Your task to perform on an android device: add a label to a message in the gmail app Image 0: 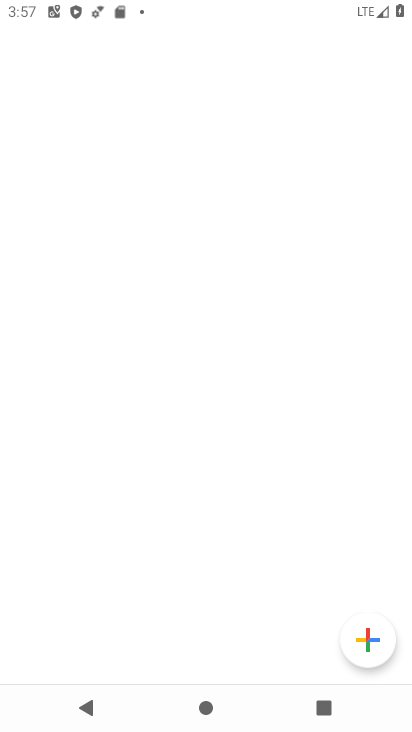
Step 0: press home button
Your task to perform on an android device: add a label to a message in the gmail app Image 1: 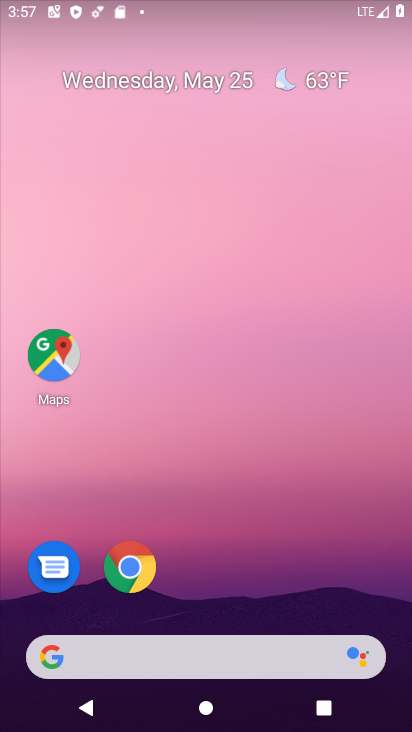
Step 1: drag from (328, 592) to (307, 215)
Your task to perform on an android device: add a label to a message in the gmail app Image 2: 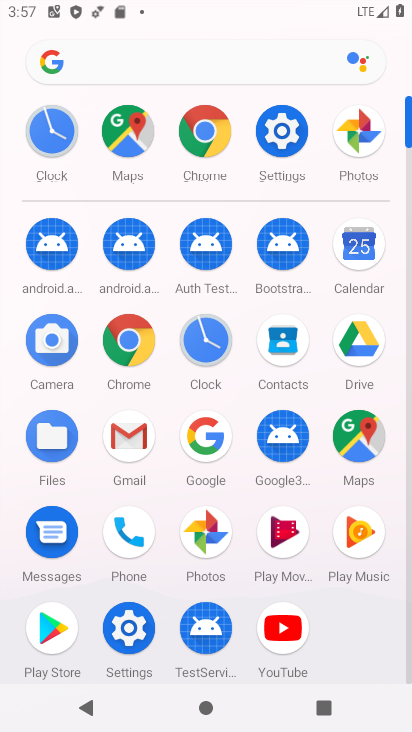
Step 2: click (110, 445)
Your task to perform on an android device: add a label to a message in the gmail app Image 3: 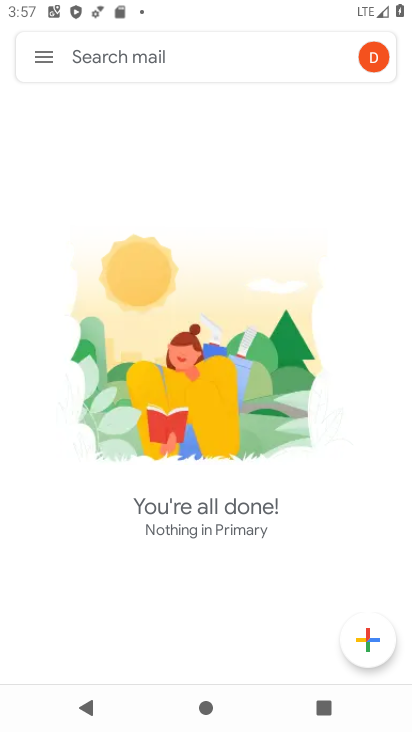
Step 3: click (45, 41)
Your task to perform on an android device: add a label to a message in the gmail app Image 4: 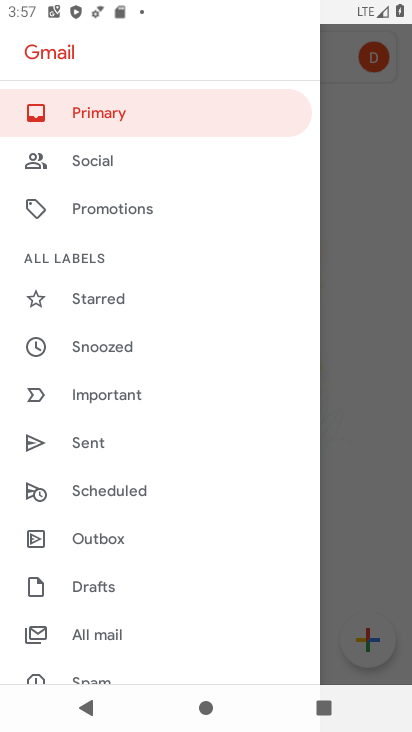
Step 4: task complete